Your task to perform on an android device: Go to Reddit.com Image 0: 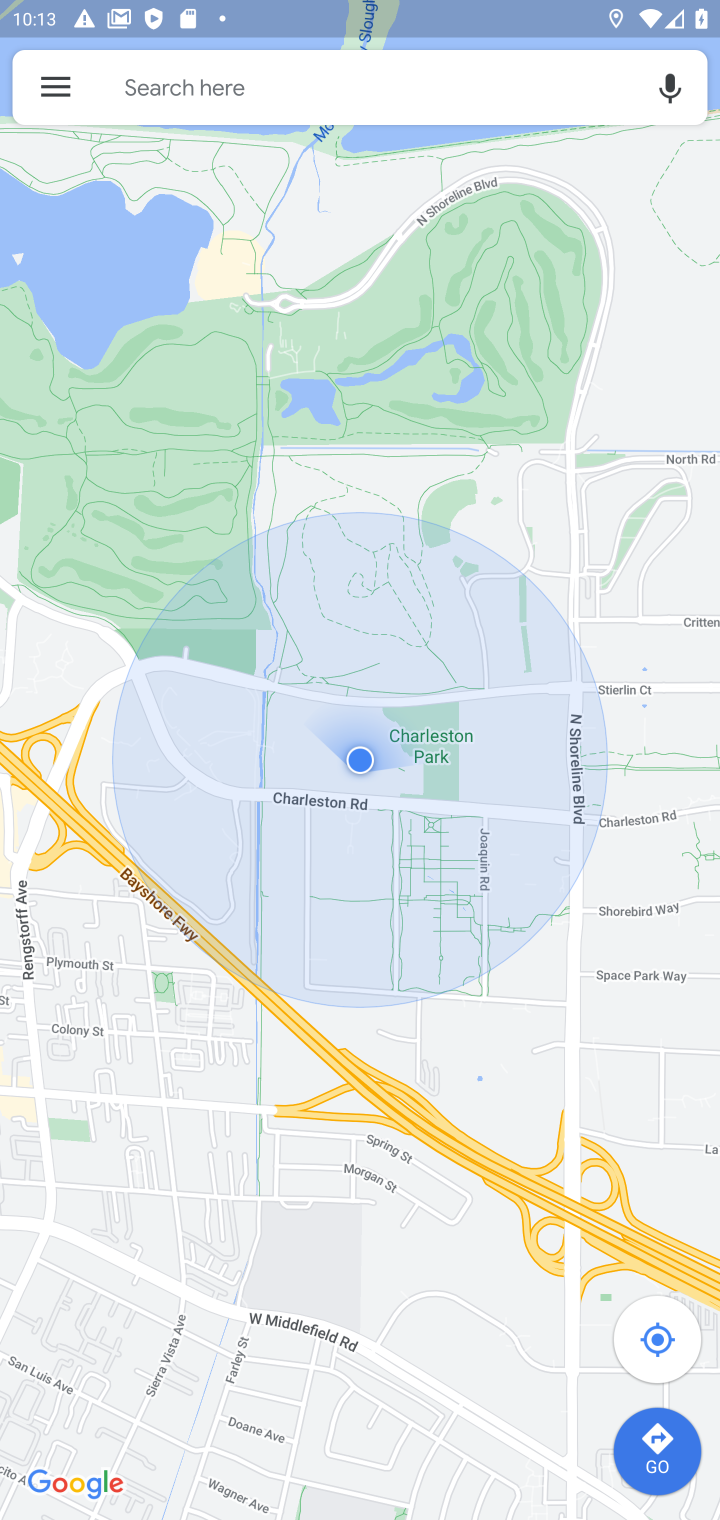
Step 0: press home button
Your task to perform on an android device: Go to Reddit.com Image 1: 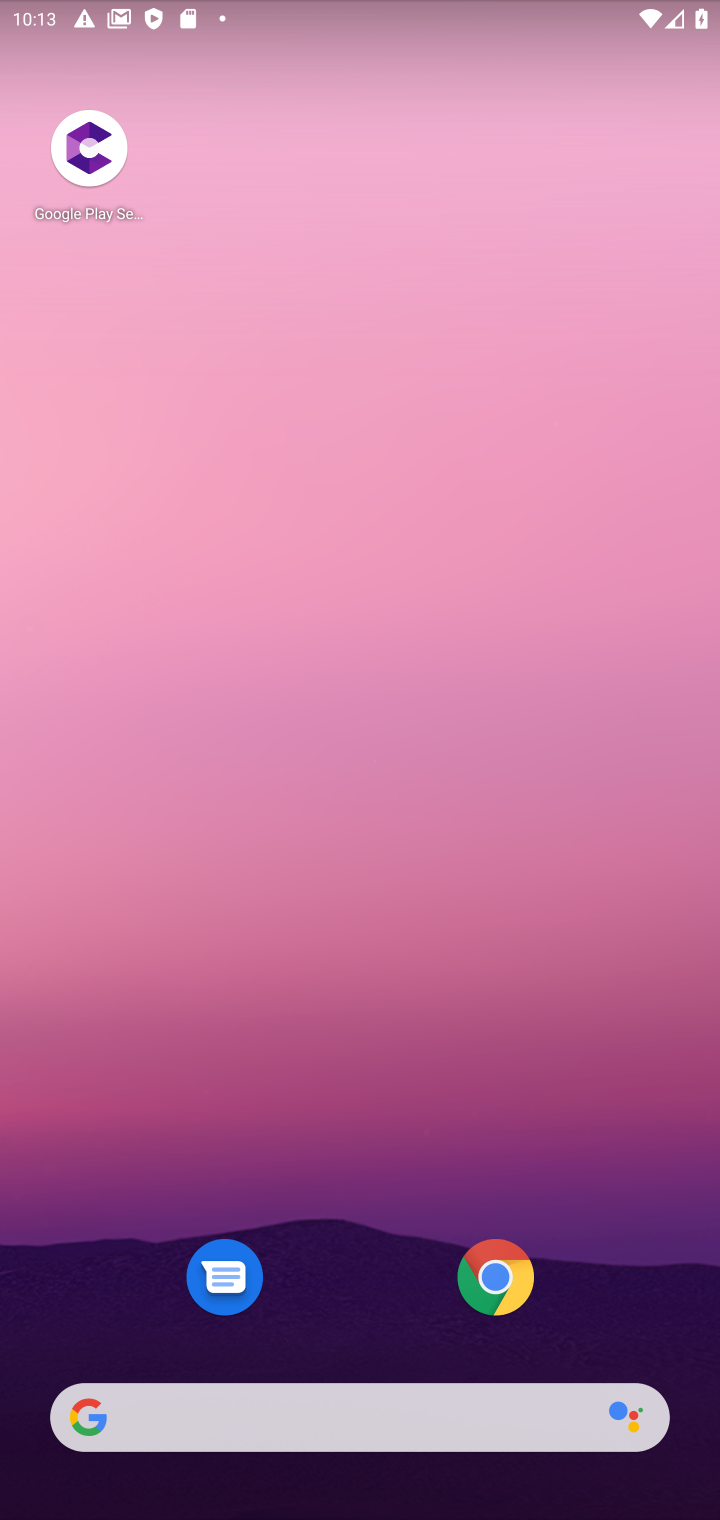
Step 1: click (512, 1265)
Your task to perform on an android device: Go to Reddit.com Image 2: 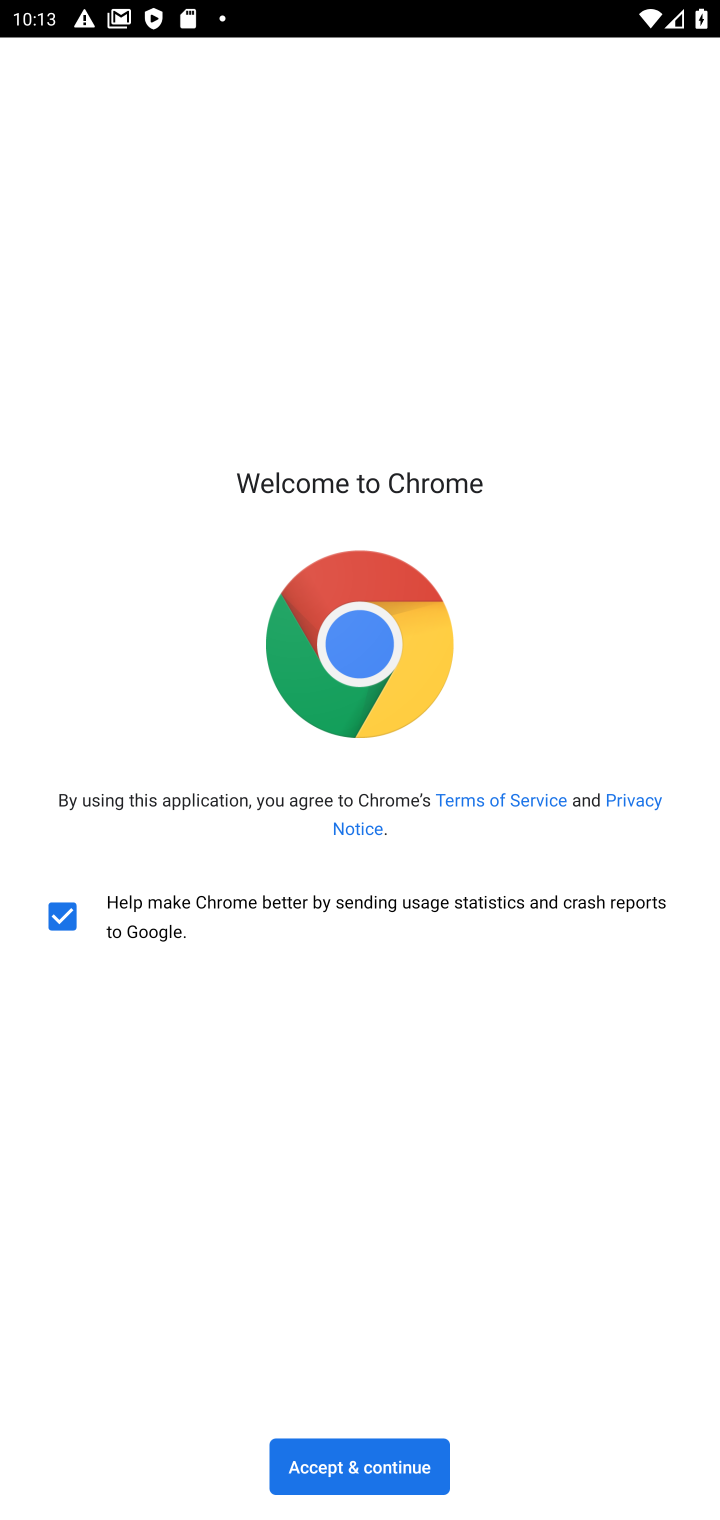
Step 2: click (399, 1467)
Your task to perform on an android device: Go to Reddit.com Image 3: 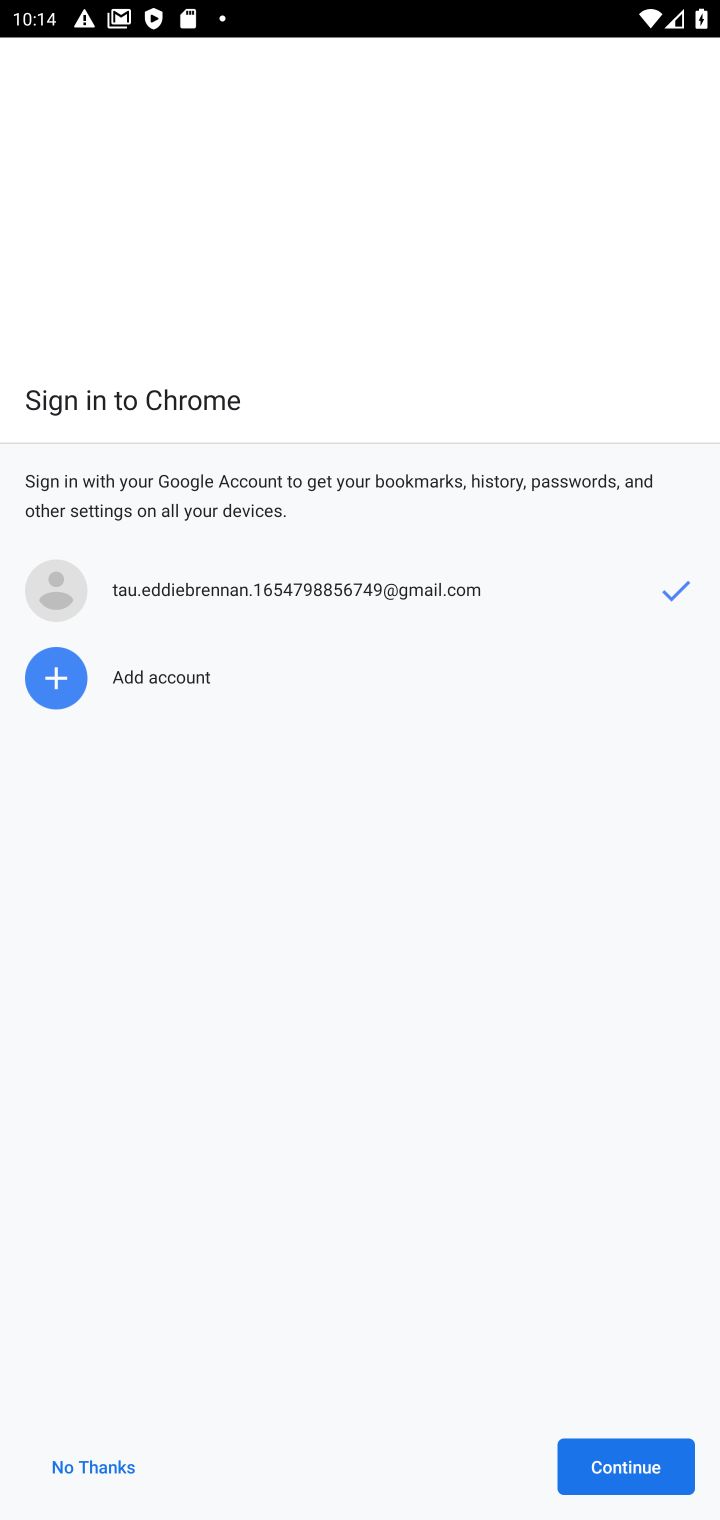
Step 3: click (612, 1461)
Your task to perform on an android device: Go to Reddit.com Image 4: 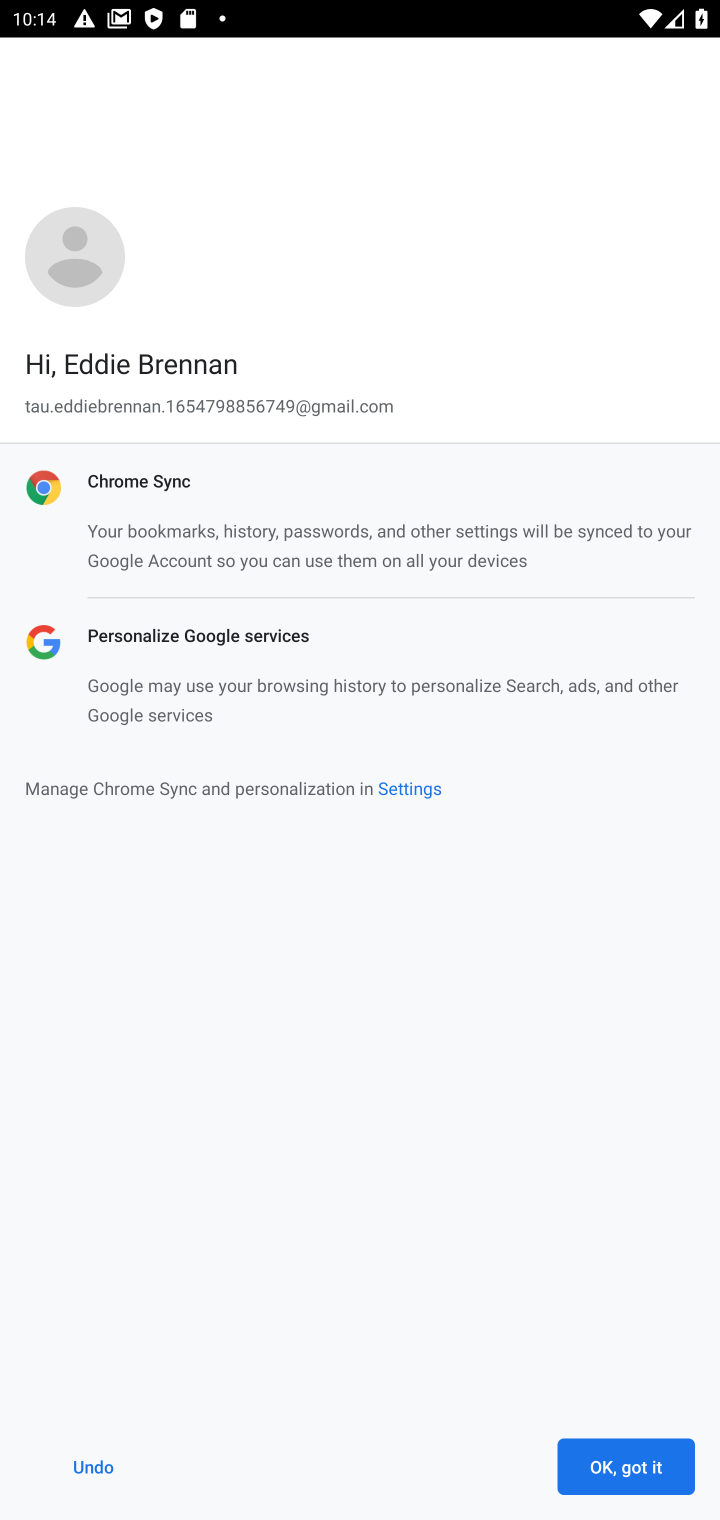
Step 4: click (612, 1461)
Your task to perform on an android device: Go to Reddit.com Image 5: 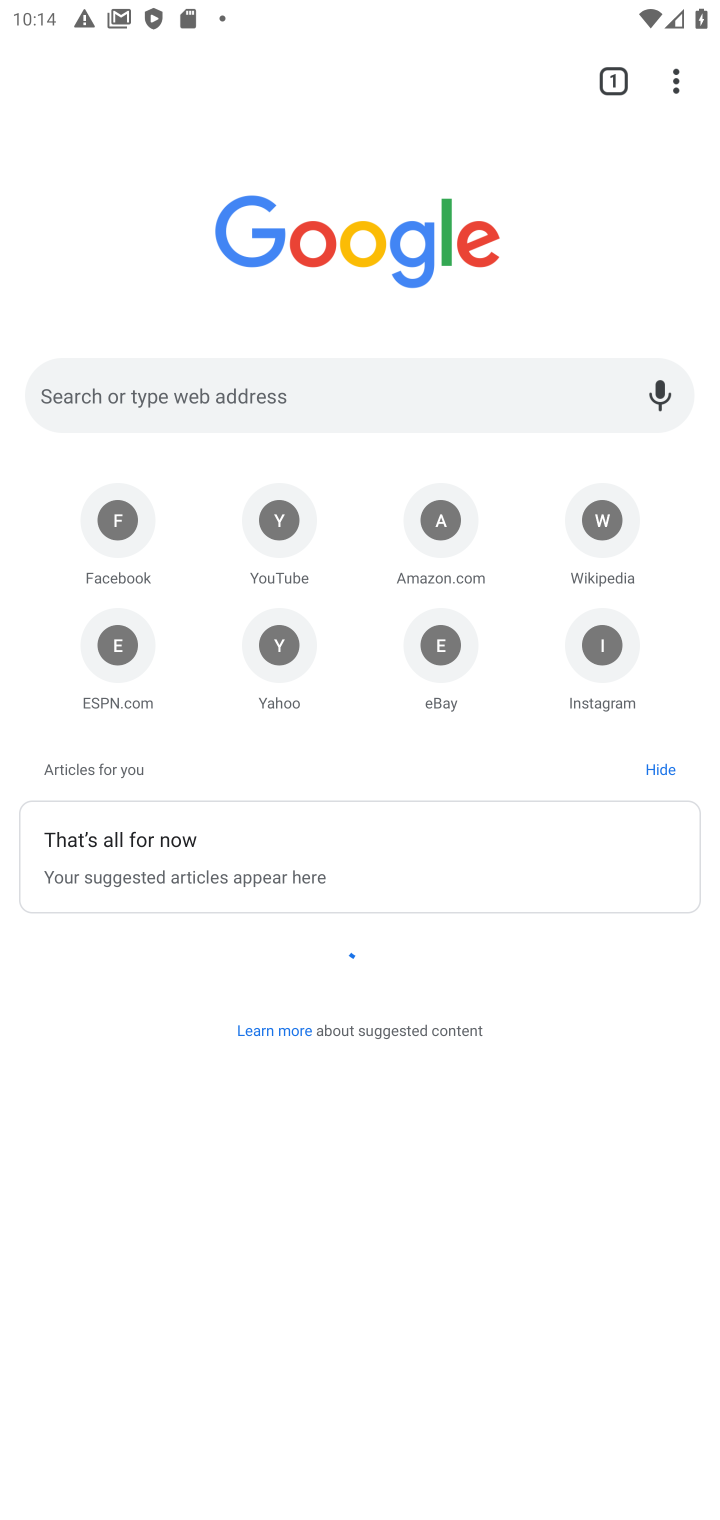
Step 5: click (335, 394)
Your task to perform on an android device: Go to Reddit.com Image 6: 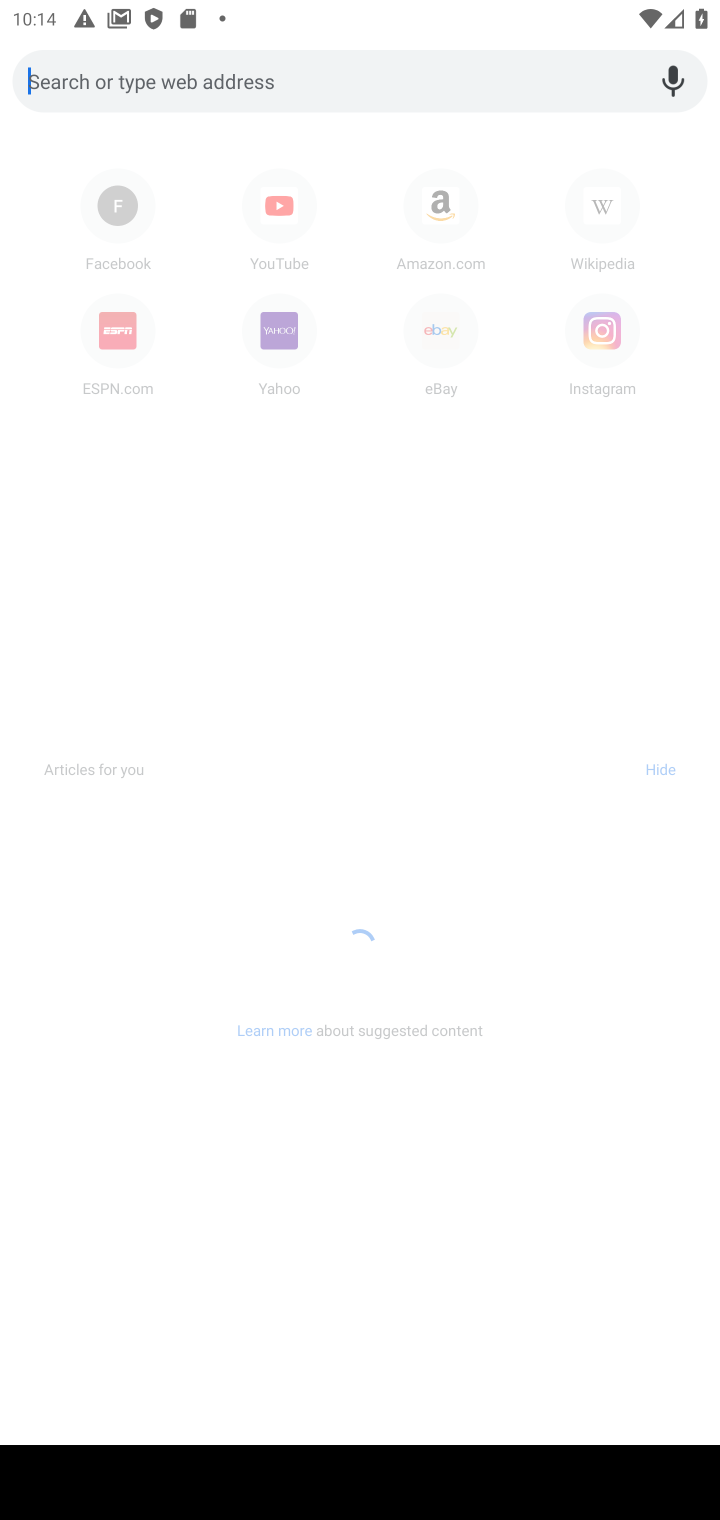
Step 6: type "reddit.com"
Your task to perform on an android device: Go to Reddit.com Image 7: 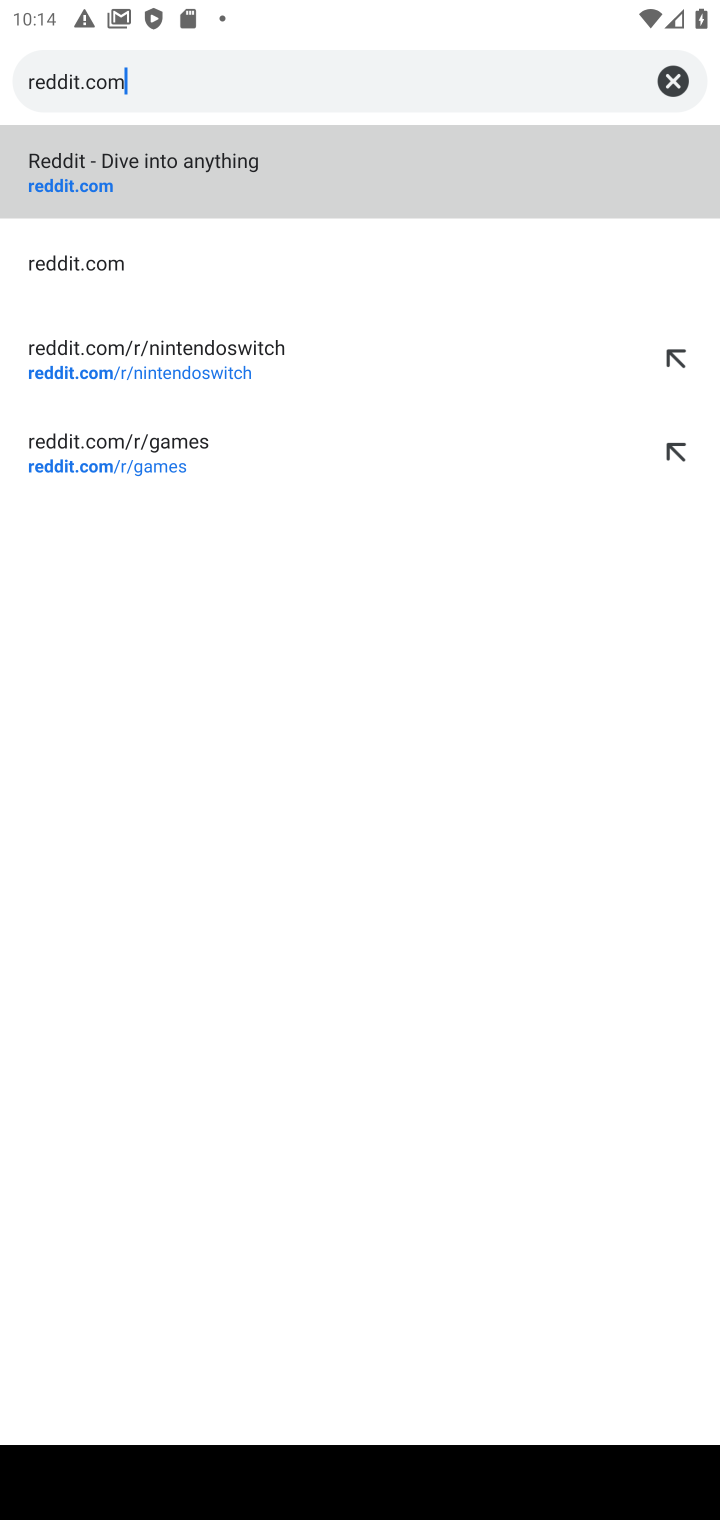
Step 7: click (238, 167)
Your task to perform on an android device: Go to Reddit.com Image 8: 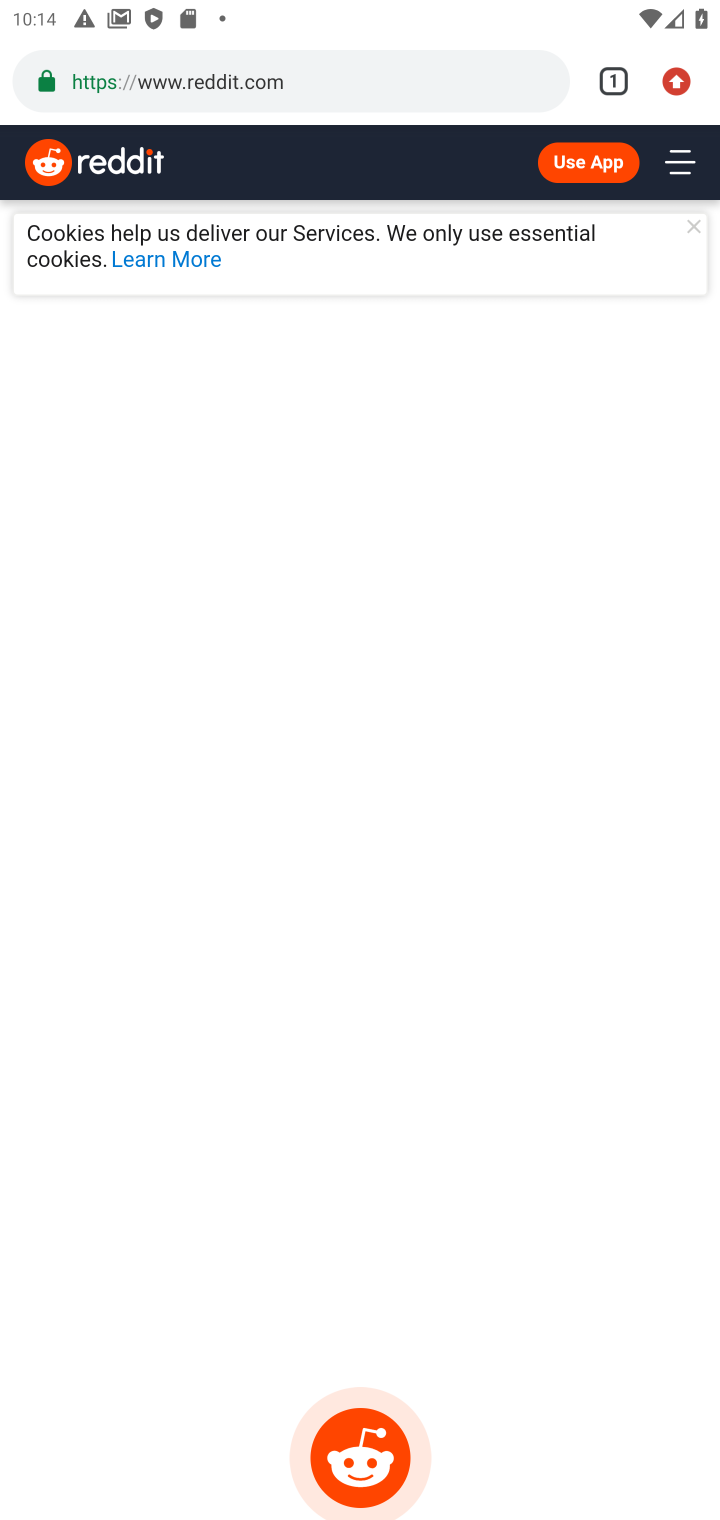
Step 8: task complete